Your task to perform on an android device: Go to Android settings Image 0: 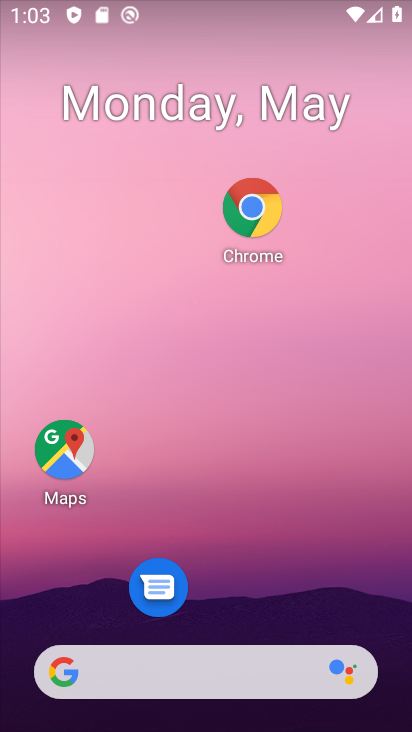
Step 0: drag from (230, 656) to (354, 134)
Your task to perform on an android device: Go to Android settings Image 1: 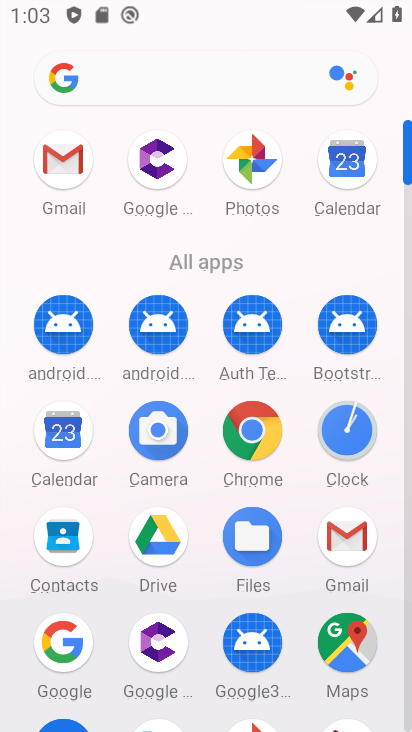
Step 1: drag from (256, 601) to (332, 232)
Your task to perform on an android device: Go to Android settings Image 2: 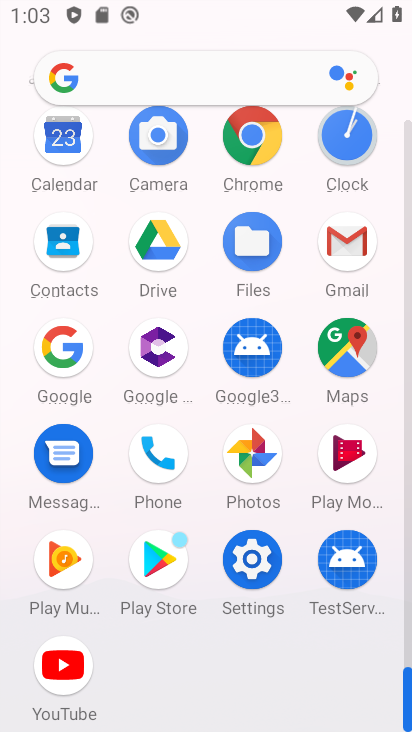
Step 2: drag from (250, 539) to (224, 205)
Your task to perform on an android device: Go to Android settings Image 3: 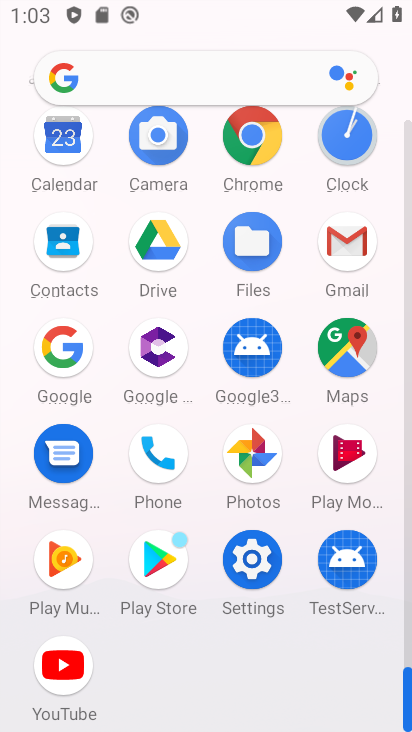
Step 3: click (249, 557)
Your task to perform on an android device: Go to Android settings Image 4: 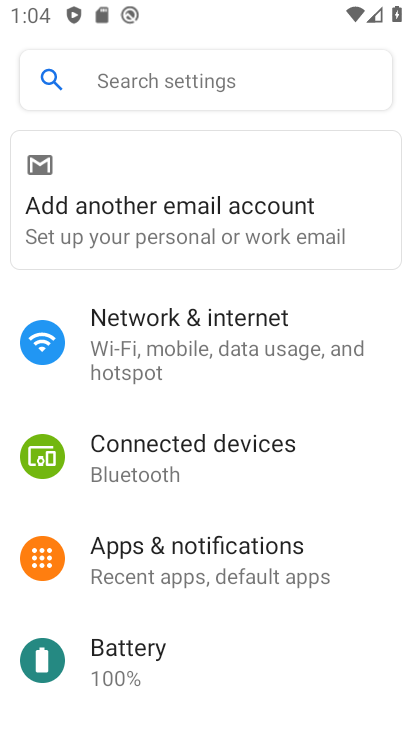
Step 4: task complete